Your task to perform on an android device: turn off location Image 0: 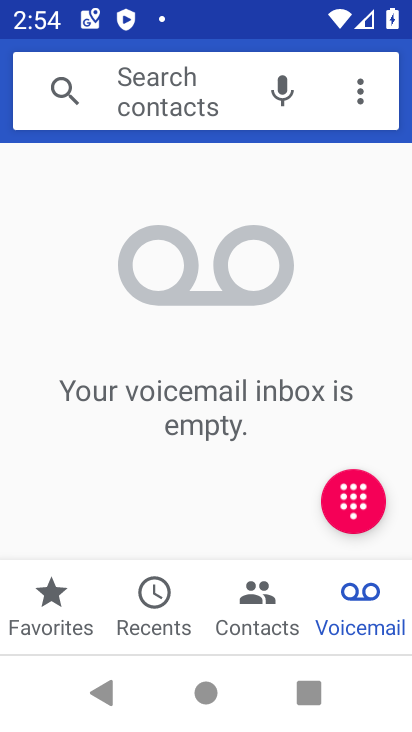
Step 0: press back button
Your task to perform on an android device: turn off location Image 1: 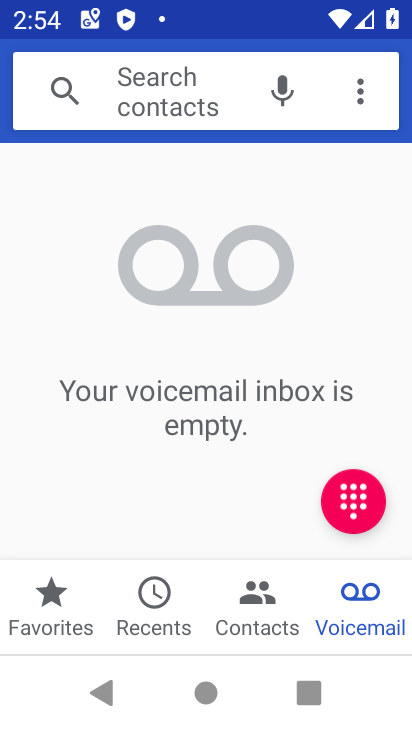
Step 1: press home button
Your task to perform on an android device: turn off location Image 2: 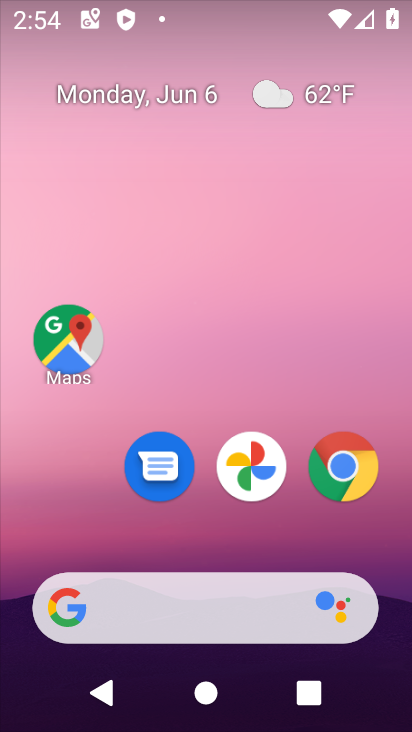
Step 2: drag from (232, 436) to (178, 100)
Your task to perform on an android device: turn off location Image 3: 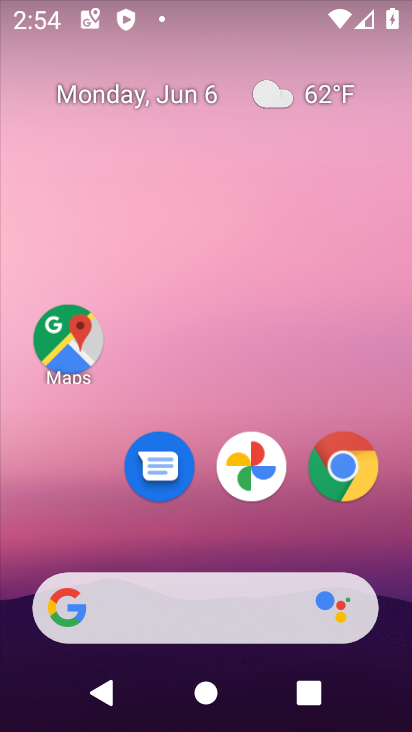
Step 3: drag from (245, 638) to (180, 175)
Your task to perform on an android device: turn off location Image 4: 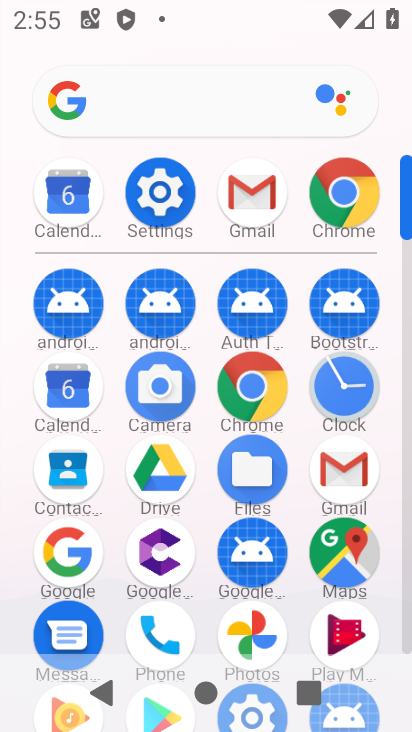
Step 4: click (172, 212)
Your task to perform on an android device: turn off location Image 5: 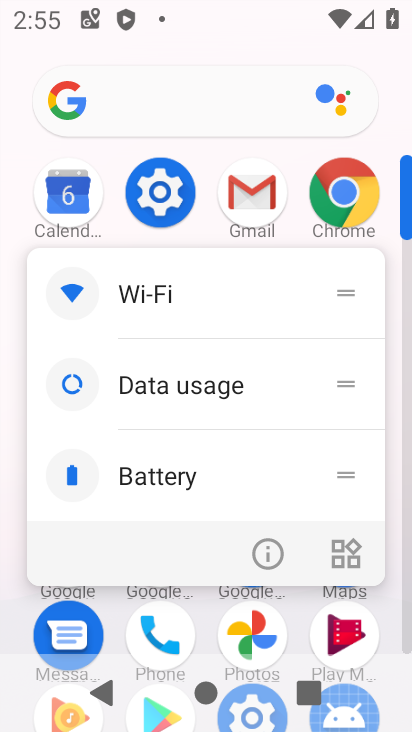
Step 5: click (172, 212)
Your task to perform on an android device: turn off location Image 6: 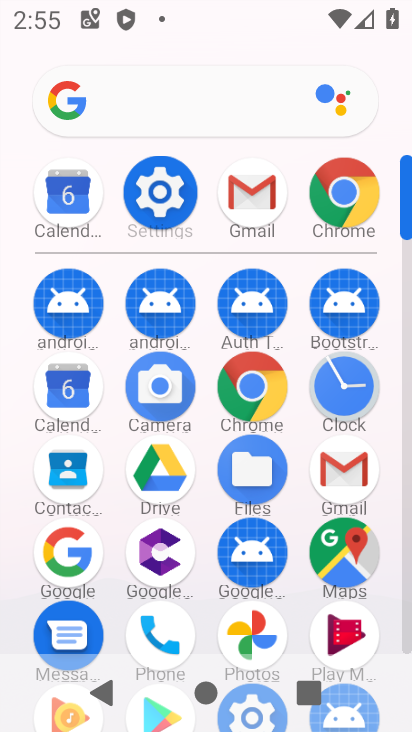
Step 6: click (172, 212)
Your task to perform on an android device: turn off location Image 7: 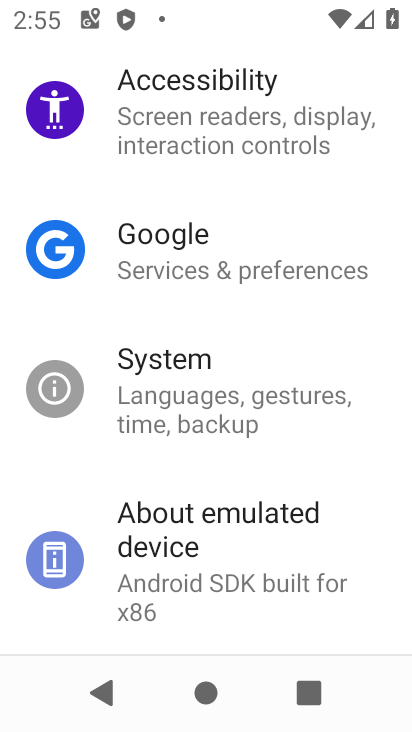
Step 7: click (172, 212)
Your task to perform on an android device: turn off location Image 8: 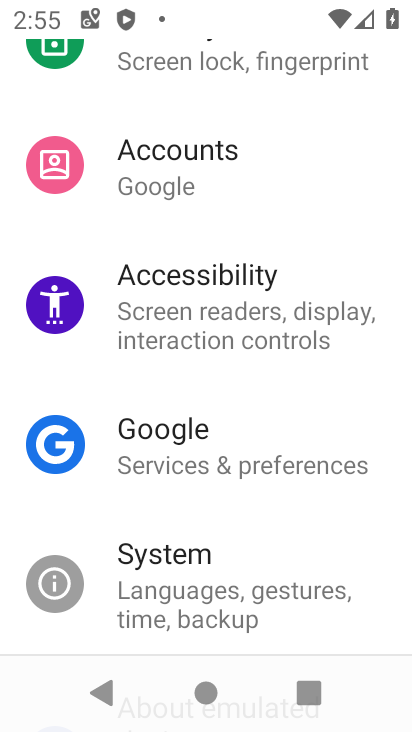
Step 8: drag from (226, 185) to (201, 502)
Your task to perform on an android device: turn off location Image 9: 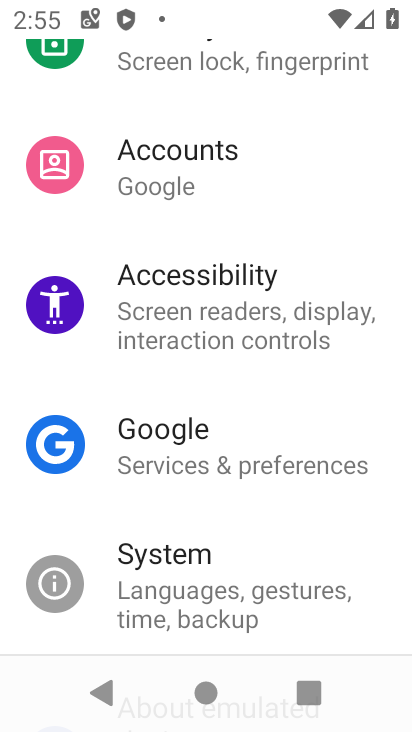
Step 9: drag from (163, 261) to (193, 542)
Your task to perform on an android device: turn off location Image 10: 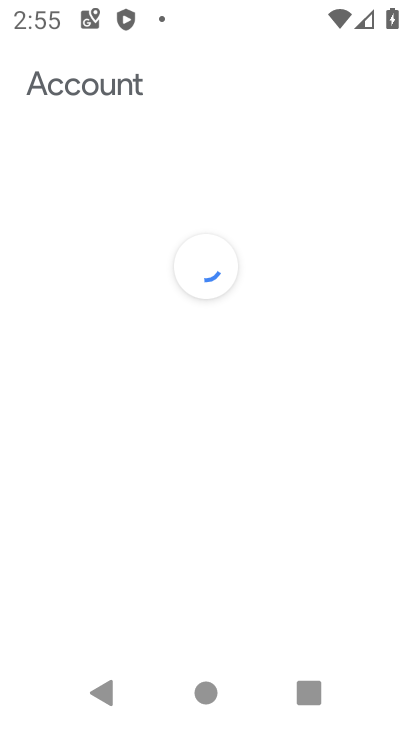
Step 10: drag from (170, 288) to (198, 638)
Your task to perform on an android device: turn off location Image 11: 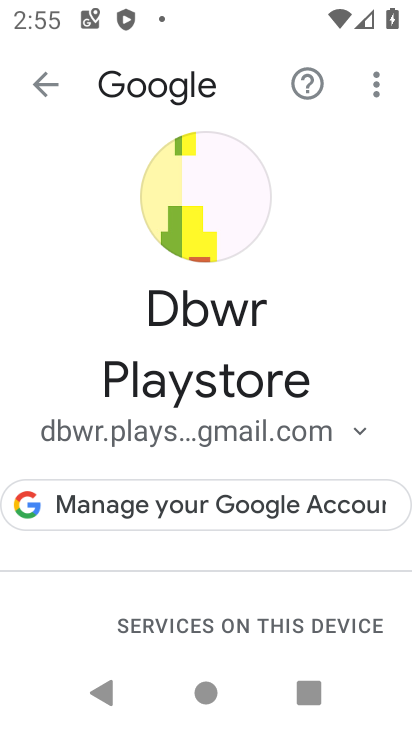
Step 11: press back button
Your task to perform on an android device: turn off location Image 12: 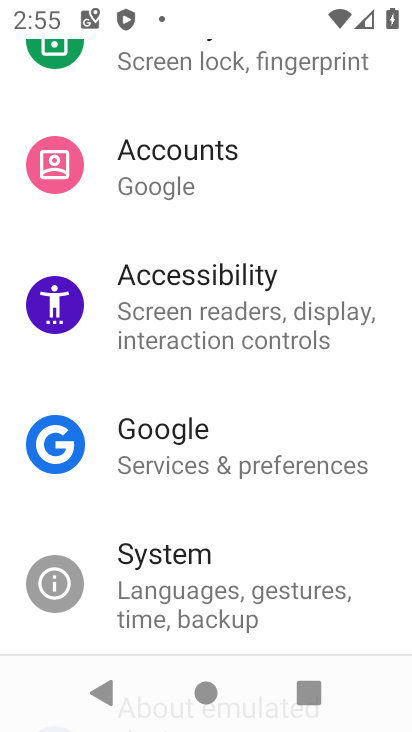
Step 12: drag from (127, 197) to (160, 575)
Your task to perform on an android device: turn off location Image 13: 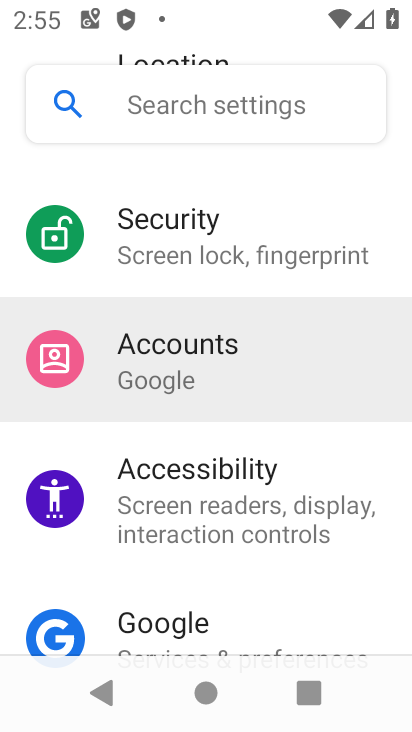
Step 13: drag from (195, 340) to (204, 688)
Your task to perform on an android device: turn off location Image 14: 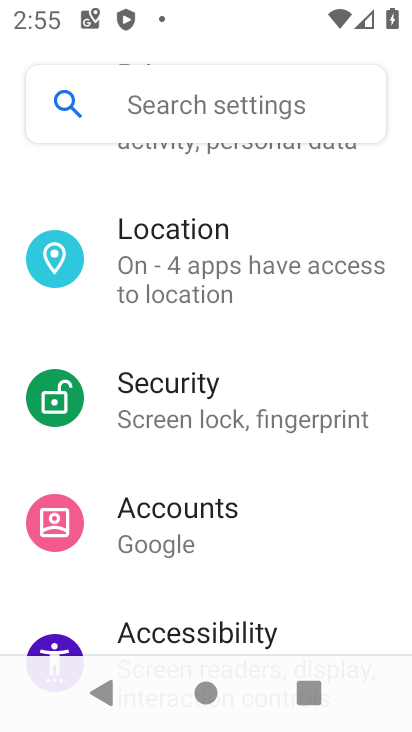
Step 14: drag from (218, 318) to (218, 608)
Your task to perform on an android device: turn off location Image 15: 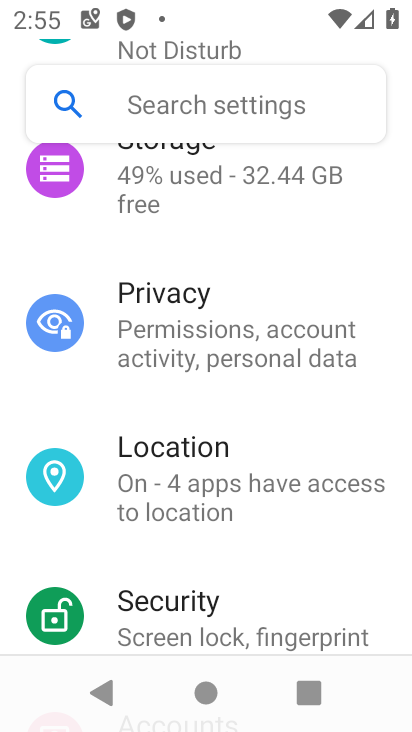
Step 15: click (196, 495)
Your task to perform on an android device: turn off location Image 16: 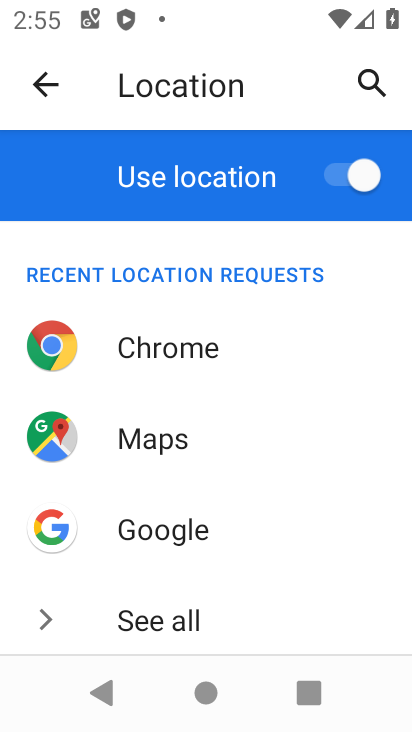
Step 16: click (350, 176)
Your task to perform on an android device: turn off location Image 17: 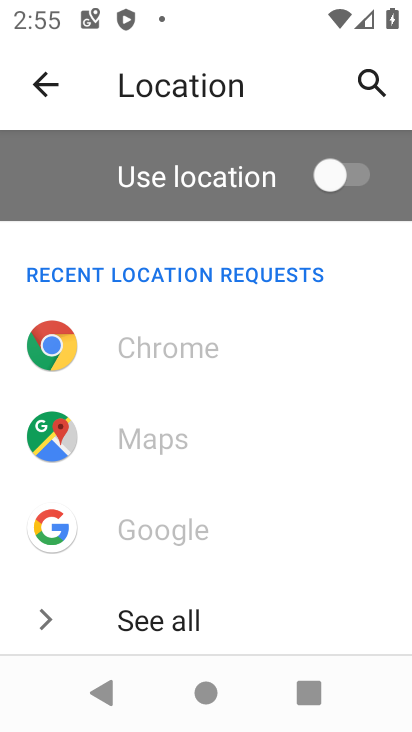
Step 17: task complete